Your task to perform on an android device: open app "Google Pay: Save, Pay, Manage" Image 0: 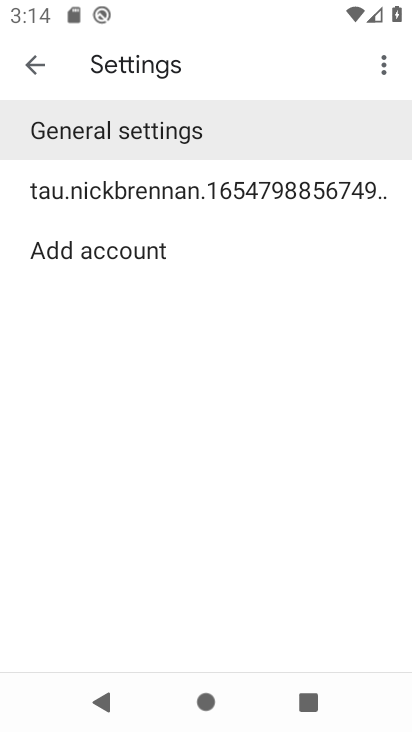
Step 0: press home button
Your task to perform on an android device: open app "Google Pay: Save, Pay, Manage" Image 1: 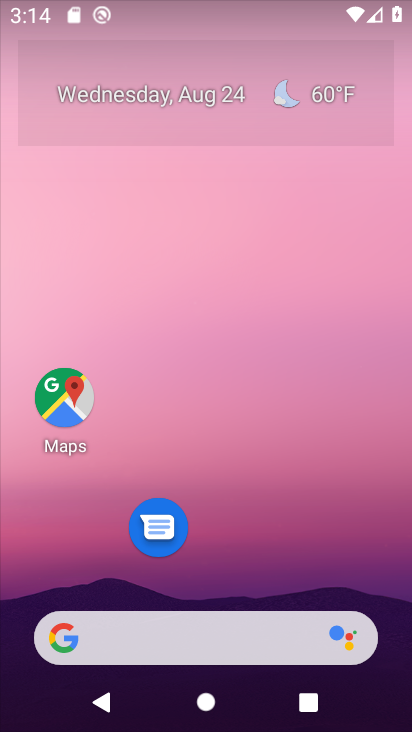
Step 1: drag from (259, 475) to (307, 183)
Your task to perform on an android device: open app "Google Pay: Save, Pay, Manage" Image 2: 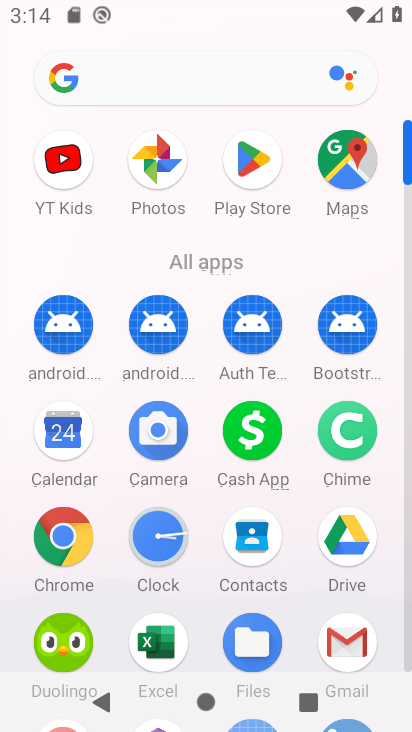
Step 2: click (254, 176)
Your task to perform on an android device: open app "Google Pay: Save, Pay, Manage" Image 3: 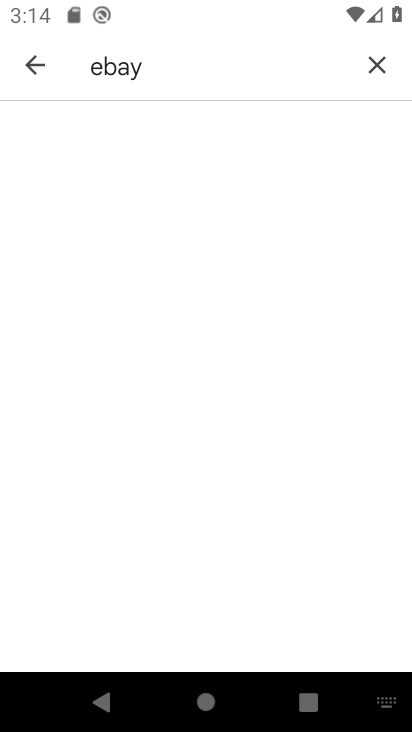
Step 3: click (361, 73)
Your task to perform on an android device: open app "Google Pay: Save, Pay, Manage" Image 4: 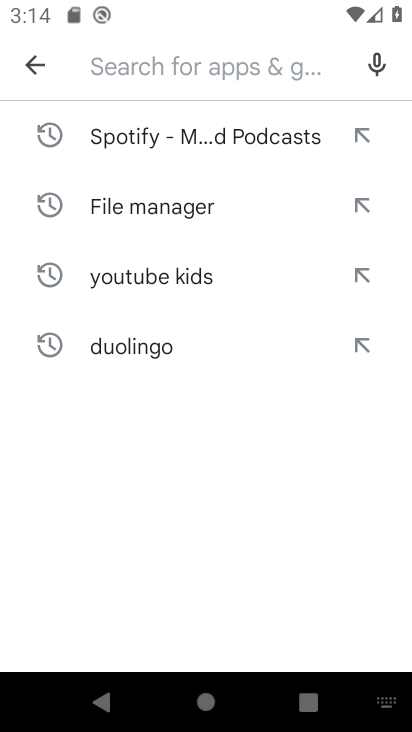
Step 4: type "google p"
Your task to perform on an android device: open app "Google Pay: Save, Pay, Manage" Image 5: 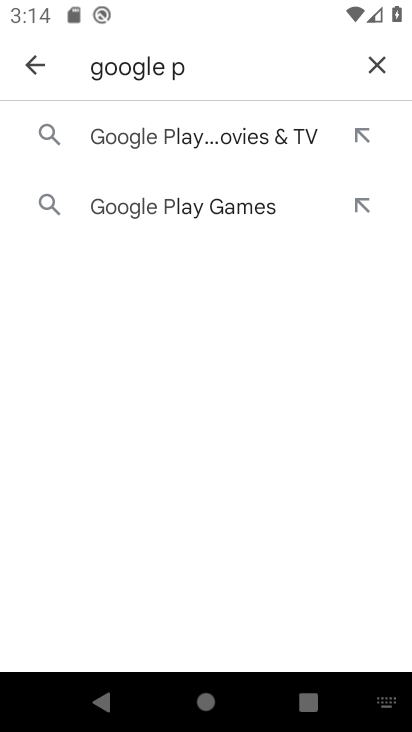
Step 5: type "ay"
Your task to perform on an android device: open app "Google Pay: Save, Pay, Manage" Image 6: 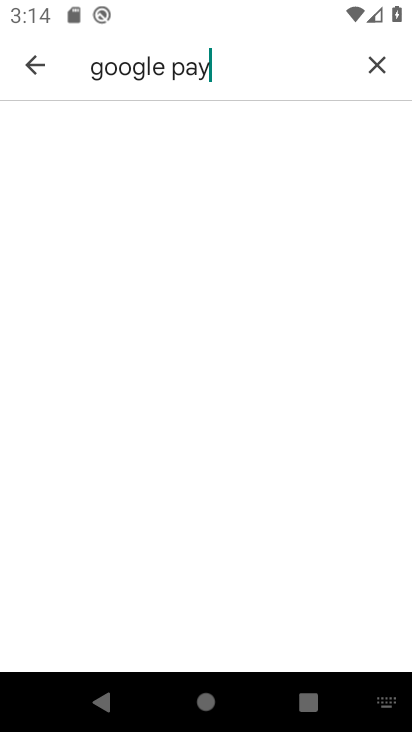
Step 6: task complete